Your task to perform on an android device: install app "Booking.com: Hotels and more" Image 0: 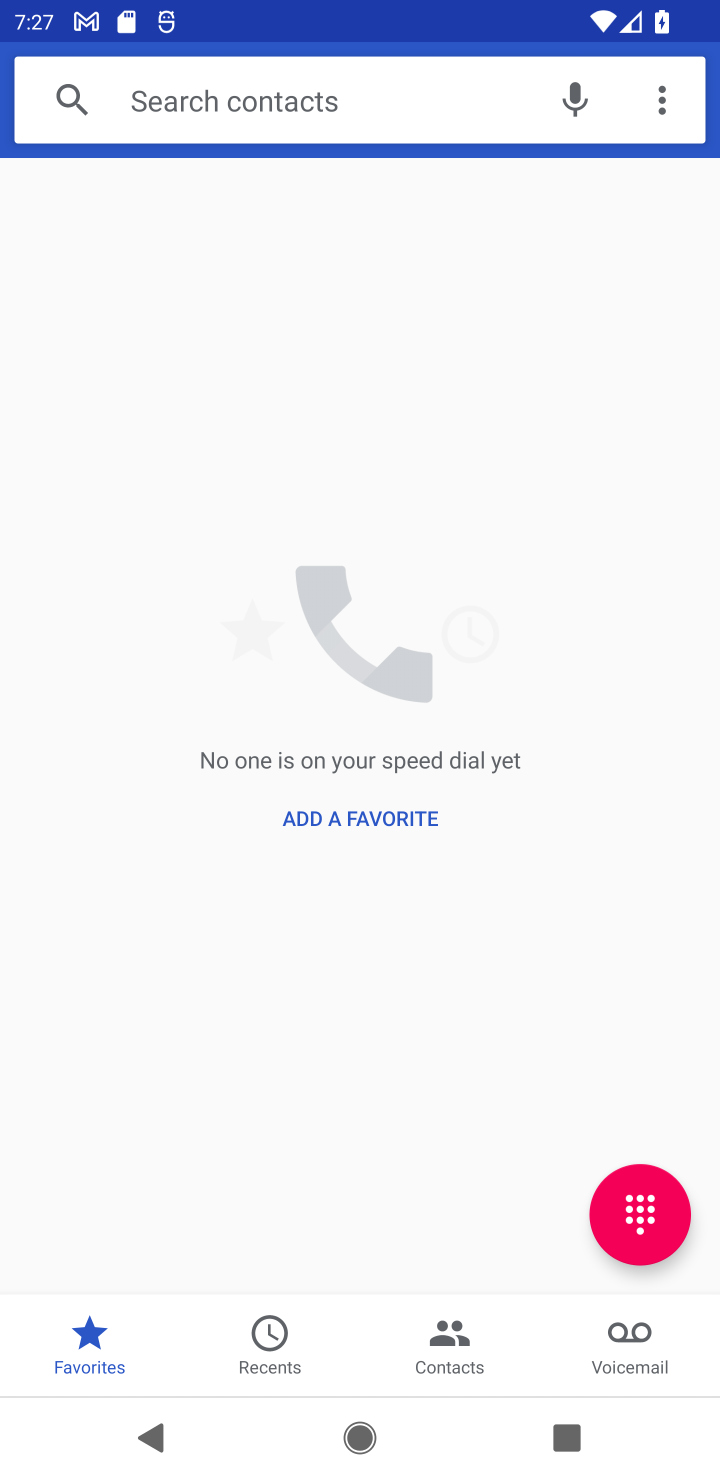
Step 0: press home button
Your task to perform on an android device: install app "Booking.com: Hotels and more" Image 1: 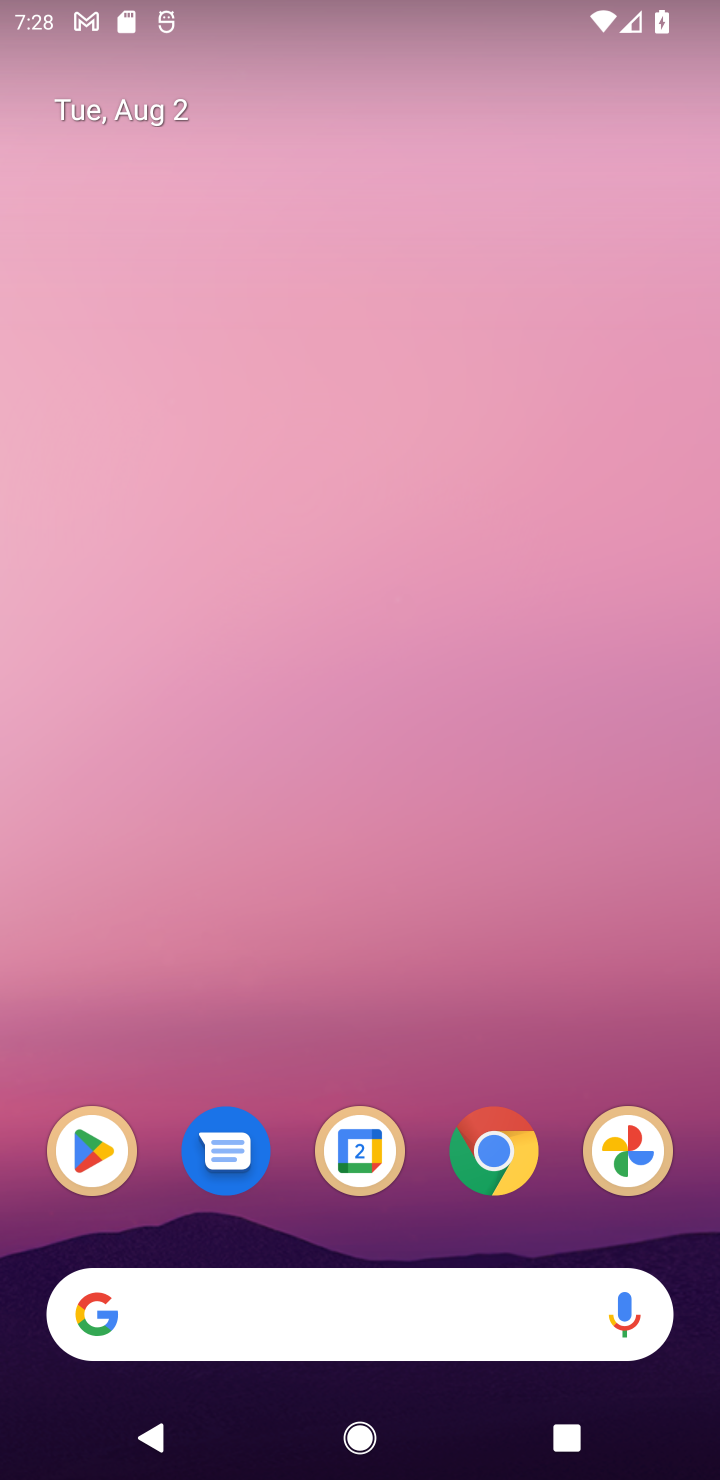
Step 1: click (77, 1142)
Your task to perform on an android device: install app "Booking.com: Hotels and more" Image 2: 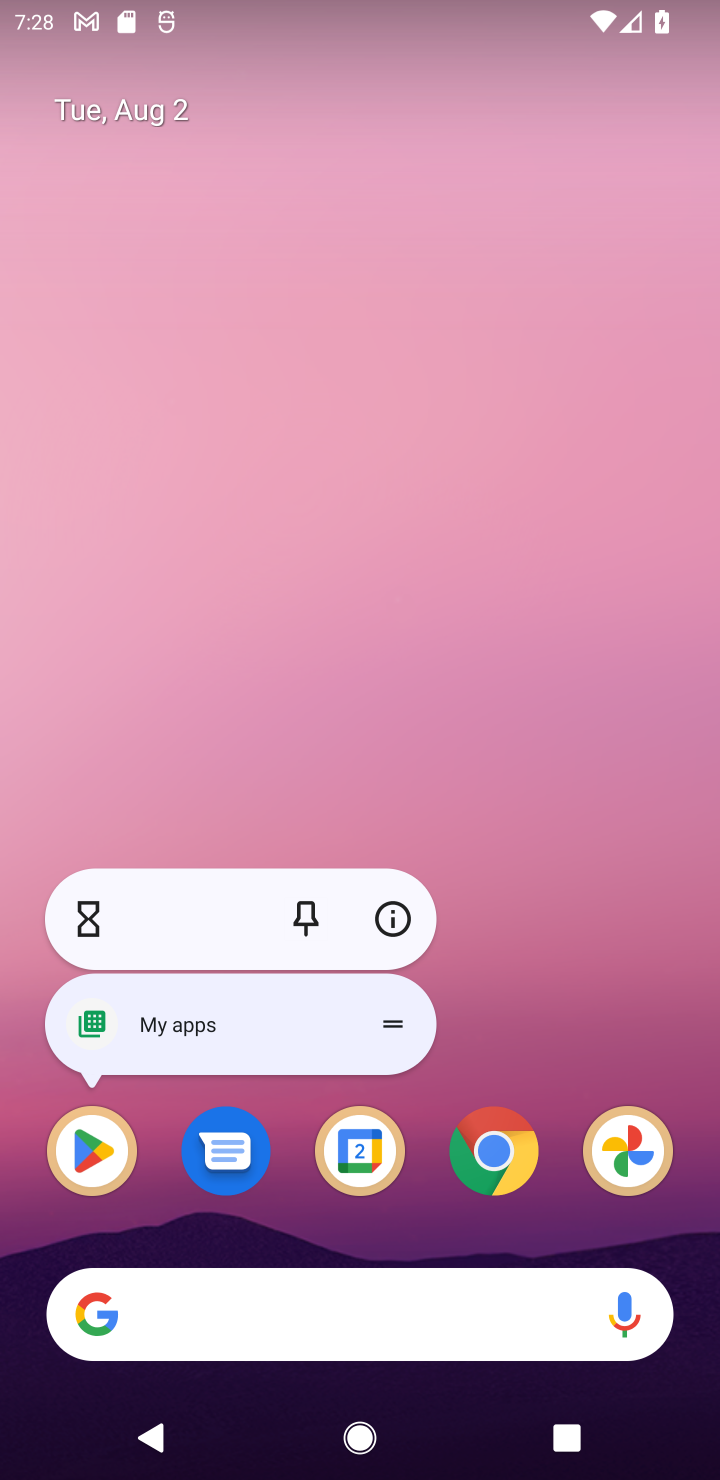
Step 2: click (82, 1210)
Your task to perform on an android device: install app "Booking.com: Hotels and more" Image 3: 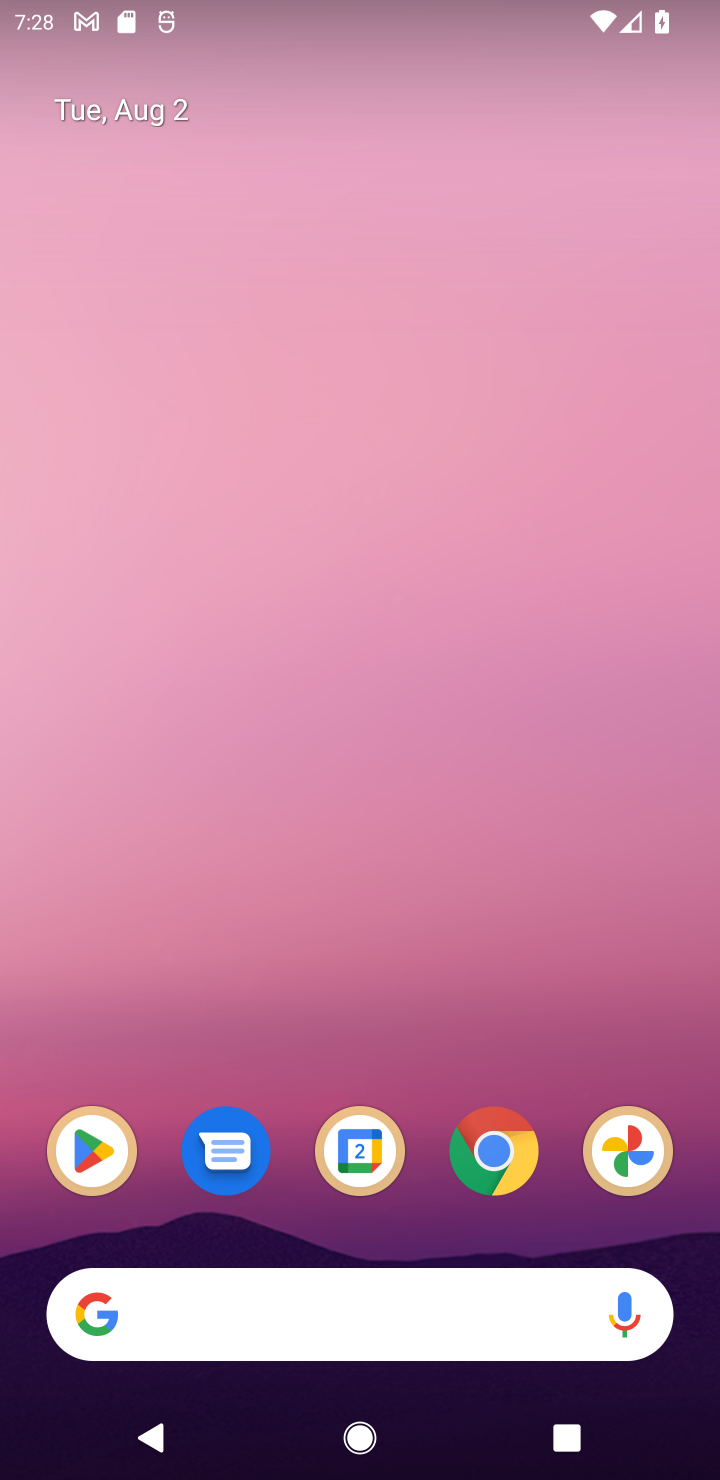
Step 3: drag from (347, 1239) to (194, 144)
Your task to perform on an android device: install app "Booking.com: Hotels and more" Image 4: 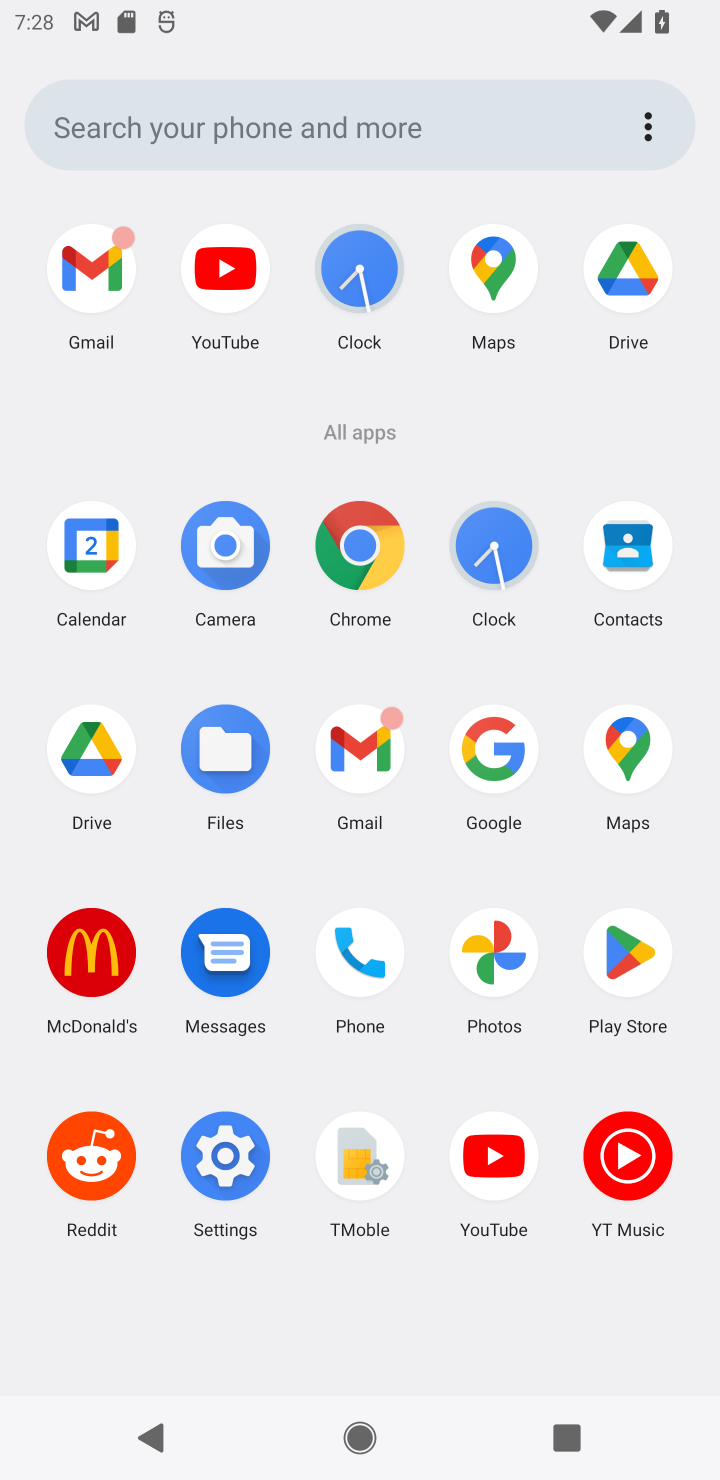
Step 4: click (562, 985)
Your task to perform on an android device: install app "Booking.com: Hotels and more" Image 5: 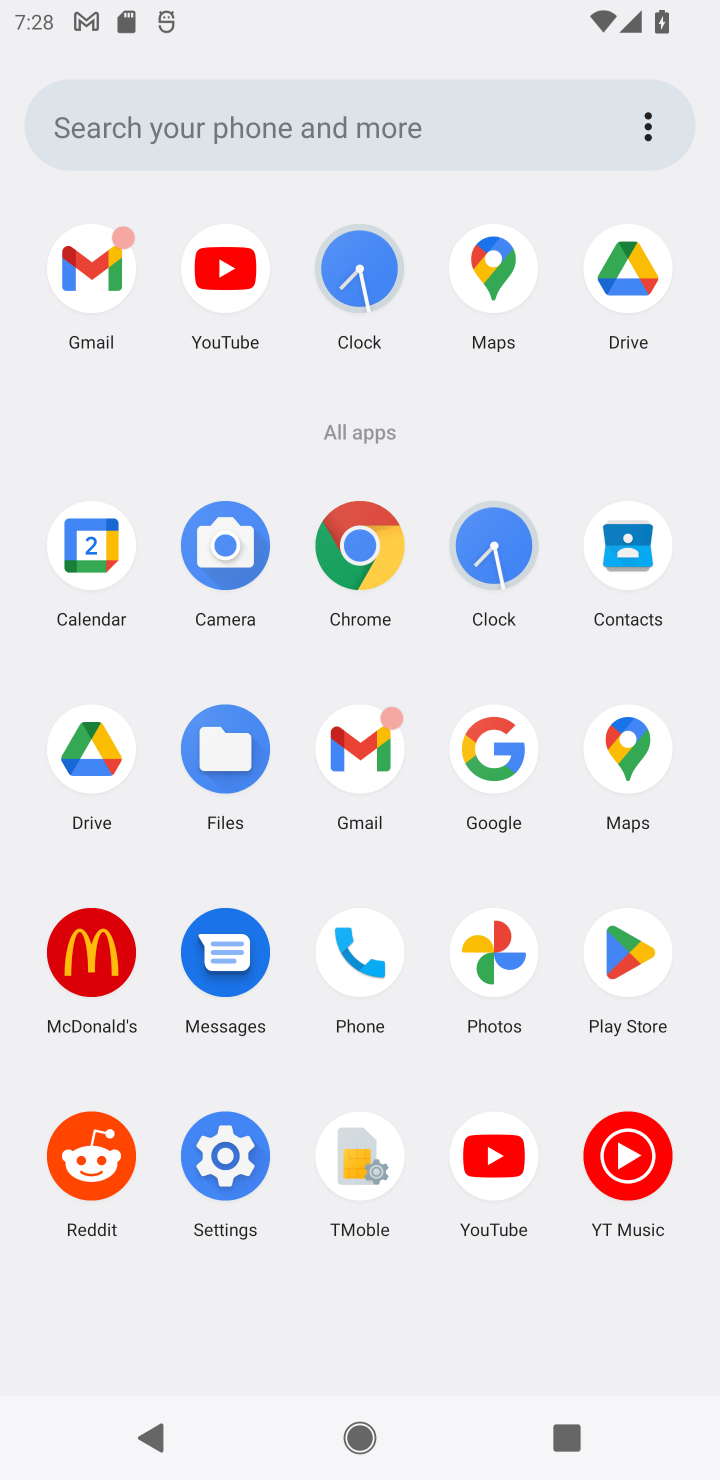
Step 5: click (595, 975)
Your task to perform on an android device: install app "Booking.com: Hotels and more" Image 6: 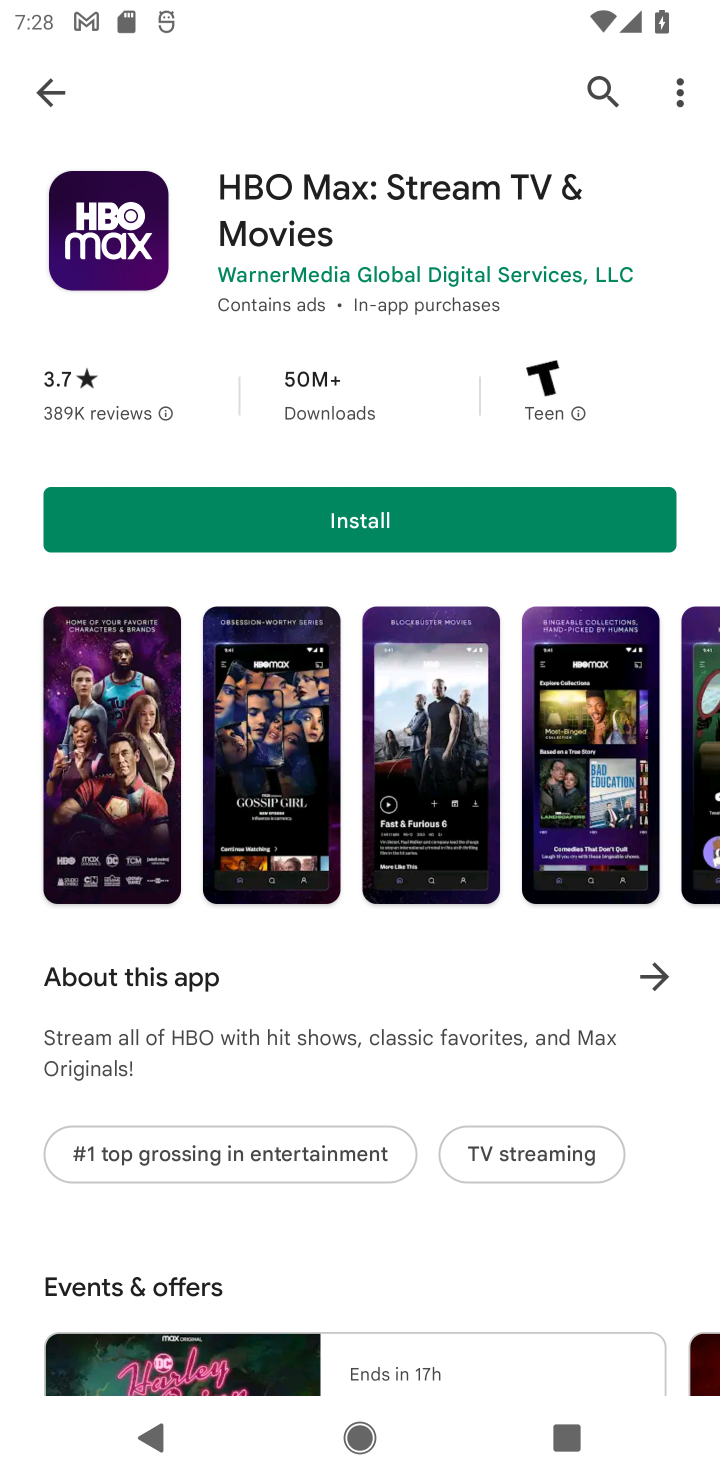
Step 6: click (324, 475)
Your task to perform on an android device: install app "Booking.com: Hotels and more" Image 7: 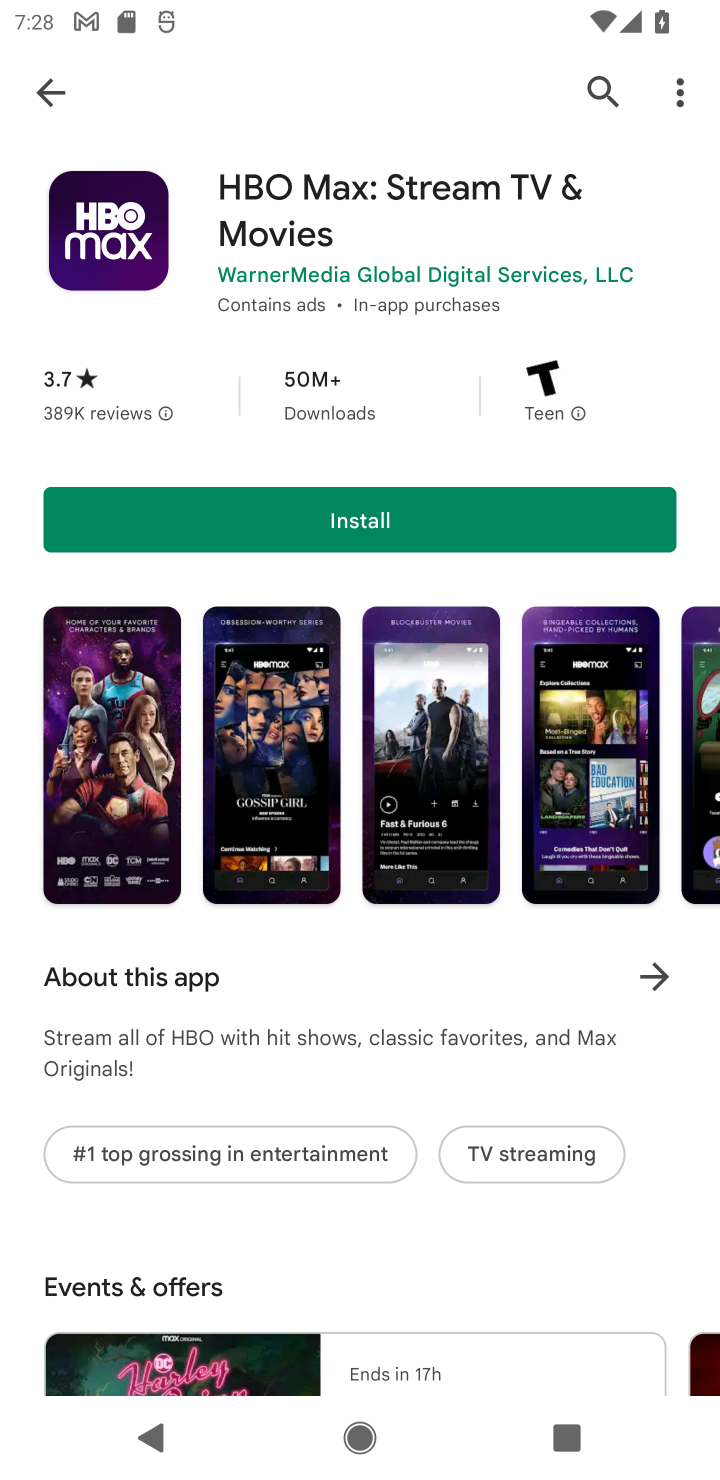
Step 7: click (344, 513)
Your task to perform on an android device: install app "Booking.com: Hotels and more" Image 8: 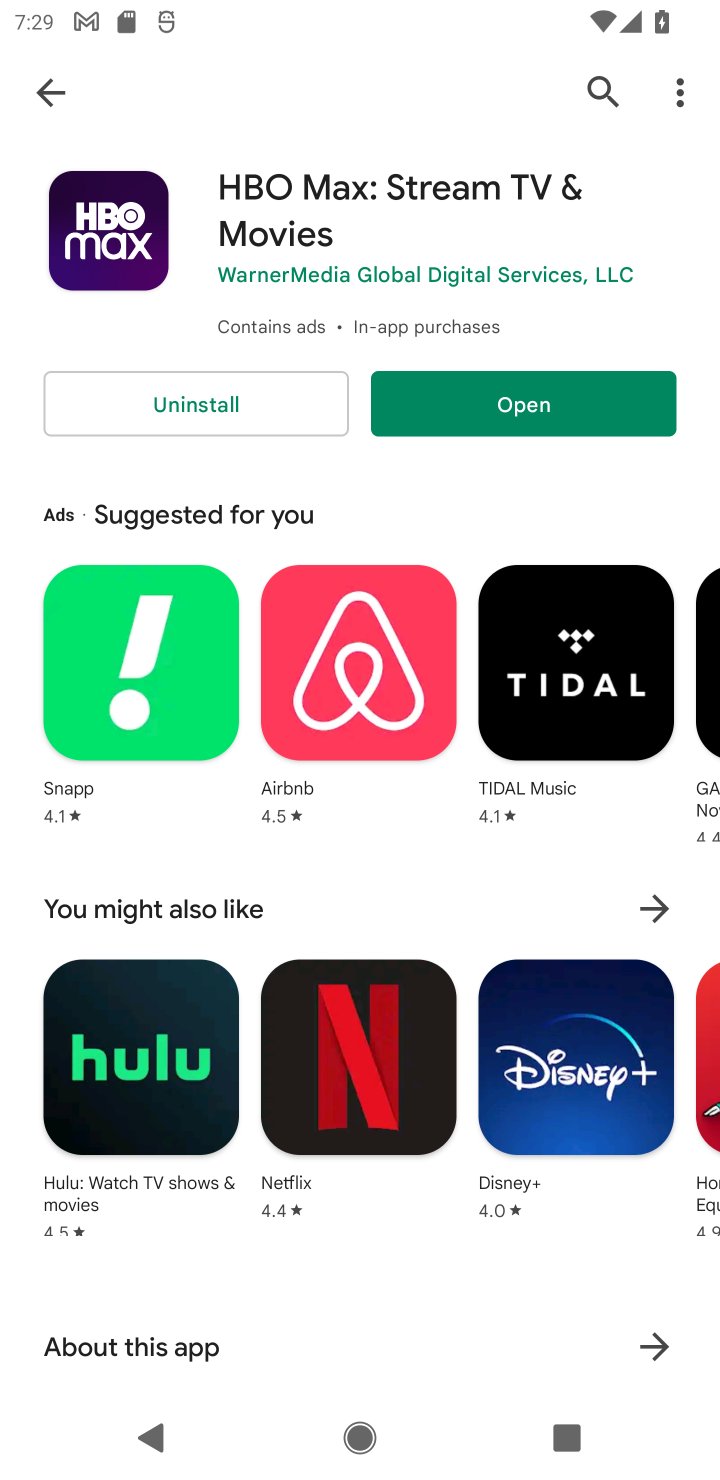
Step 8: press home button
Your task to perform on an android device: install app "Booking.com: Hotels and more" Image 9: 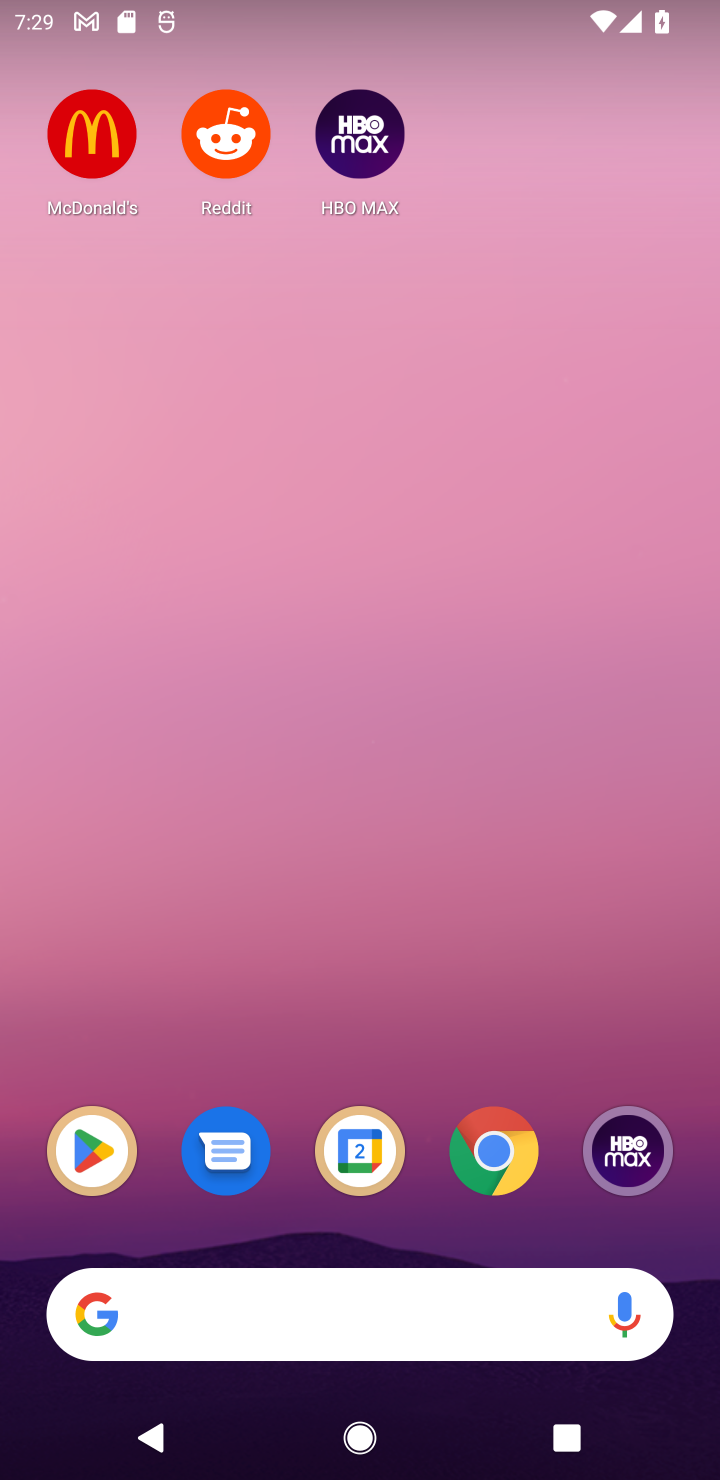
Step 9: click (81, 1143)
Your task to perform on an android device: install app "Booking.com: Hotels and more" Image 10: 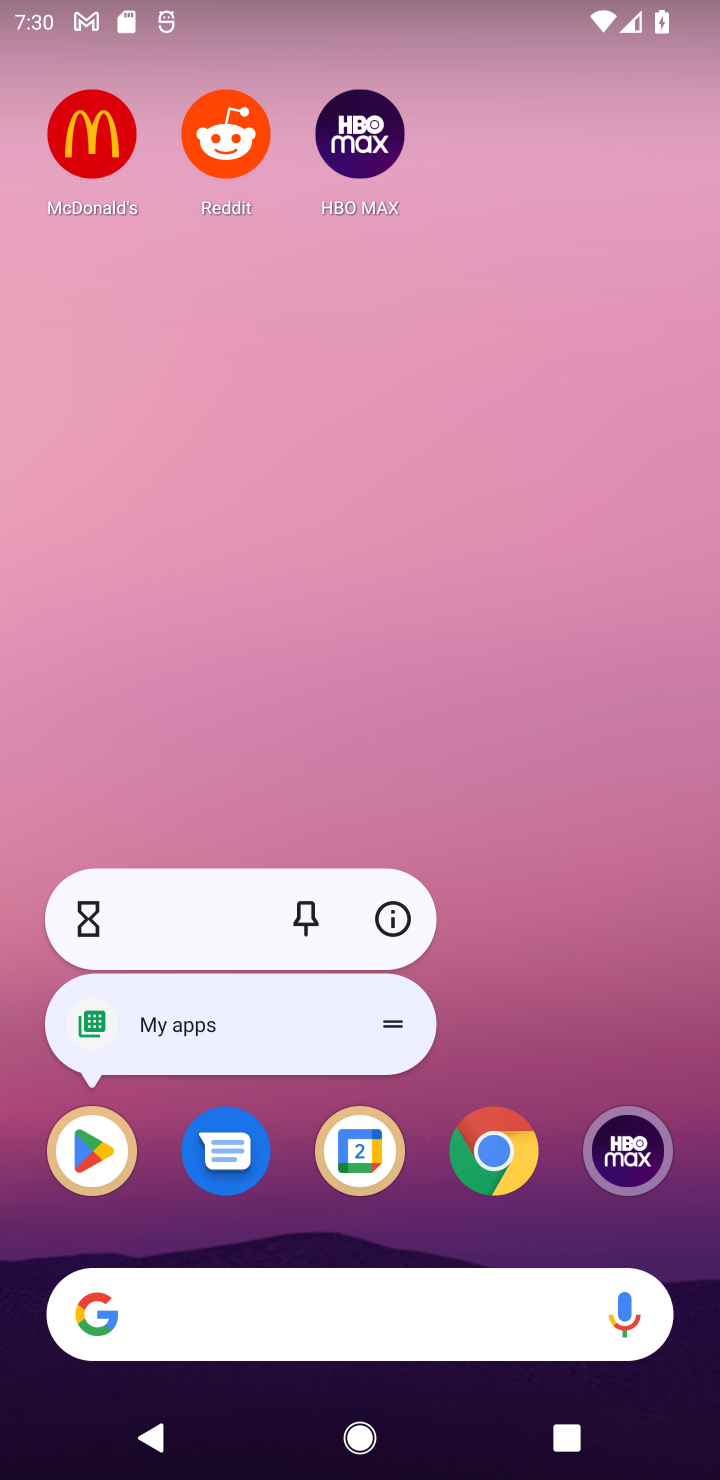
Step 10: drag from (431, 1223) to (393, 148)
Your task to perform on an android device: install app "Booking.com: Hotels and more" Image 11: 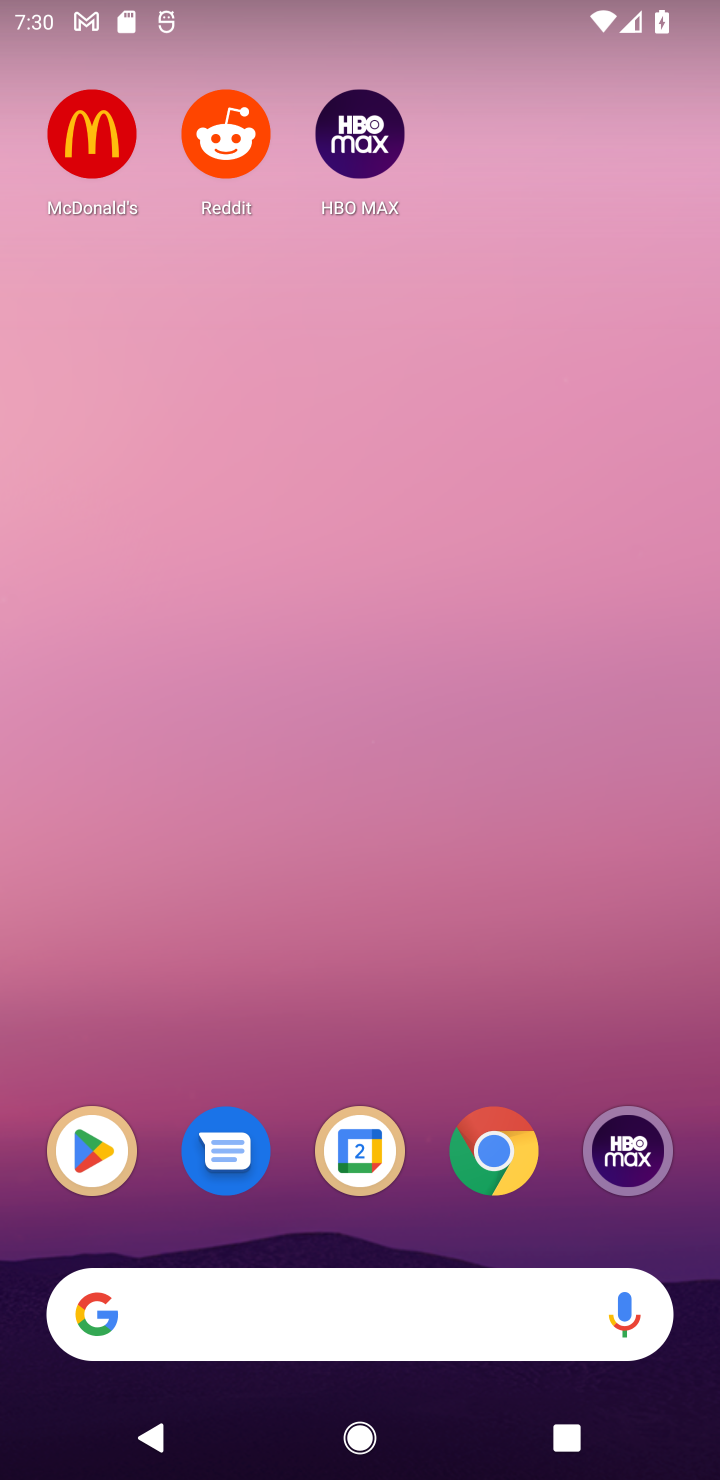
Step 11: click (118, 1144)
Your task to perform on an android device: install app "Booking.com: Hotels and more" Image 12: 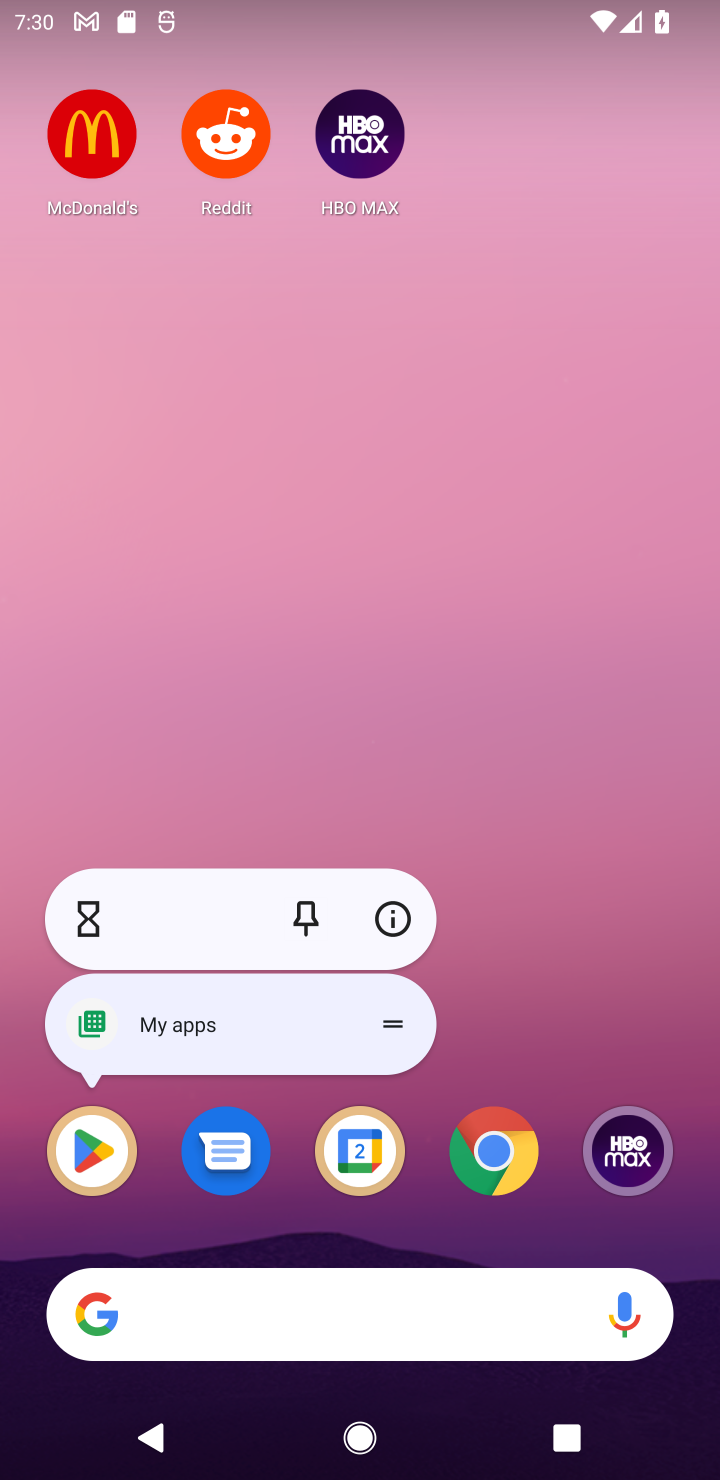
Step 12: click (319, 704)
Your task to perform on an android device: install app "Booking.com: Hotels and more" Image 13: 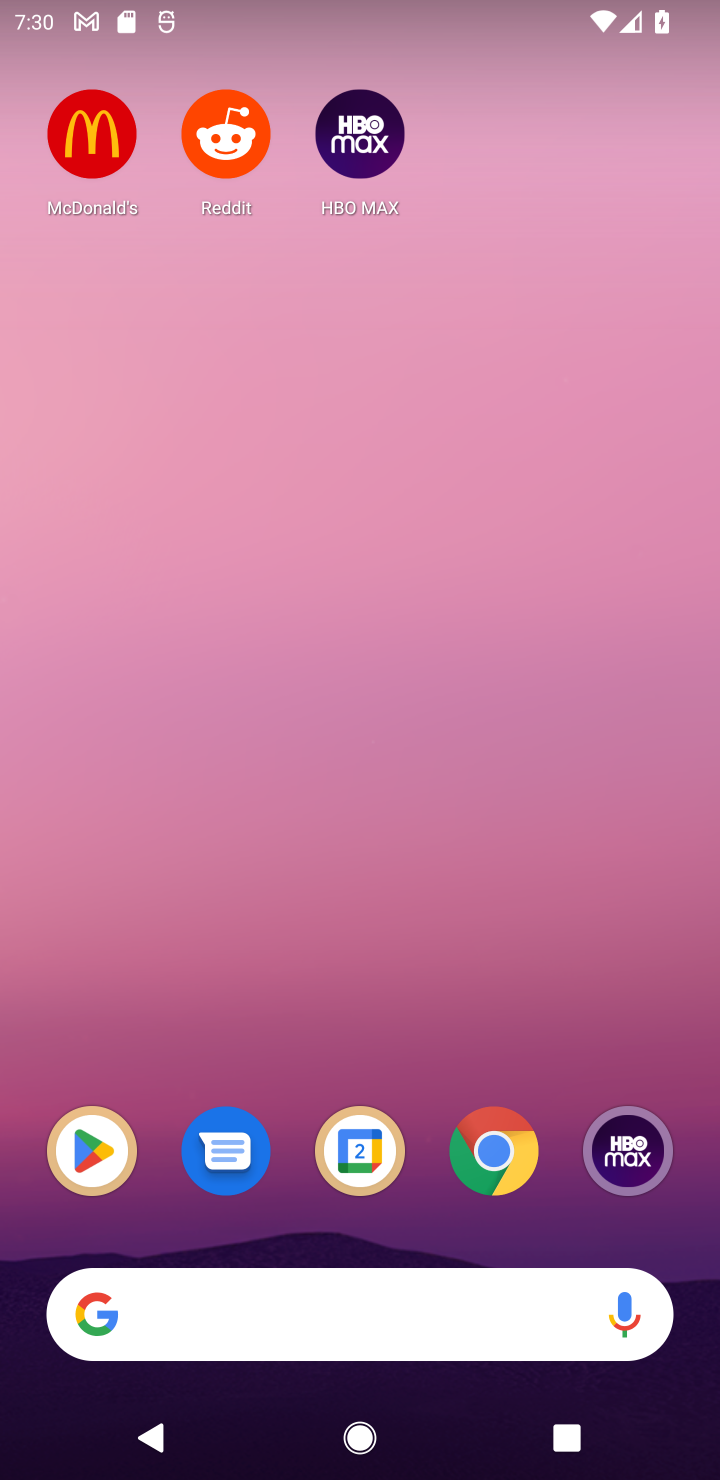
Step 13: click (81, 1166)
Your task to perform on an android device: install app "Booking.com: Hotels and more" Image 14: 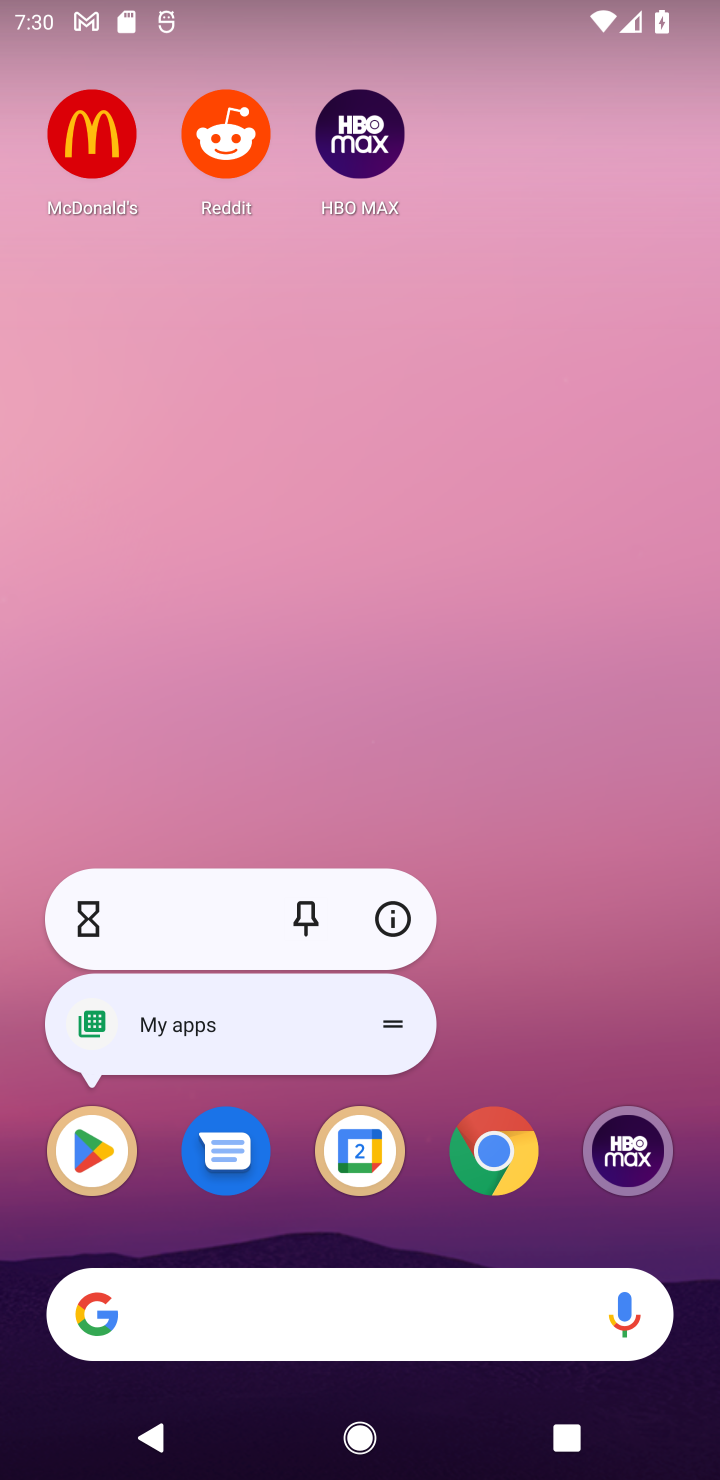
Step 14: click (122, 1164)
Your task to perform on an android device: install app "Booking.com: Hotels and more" Image 15: 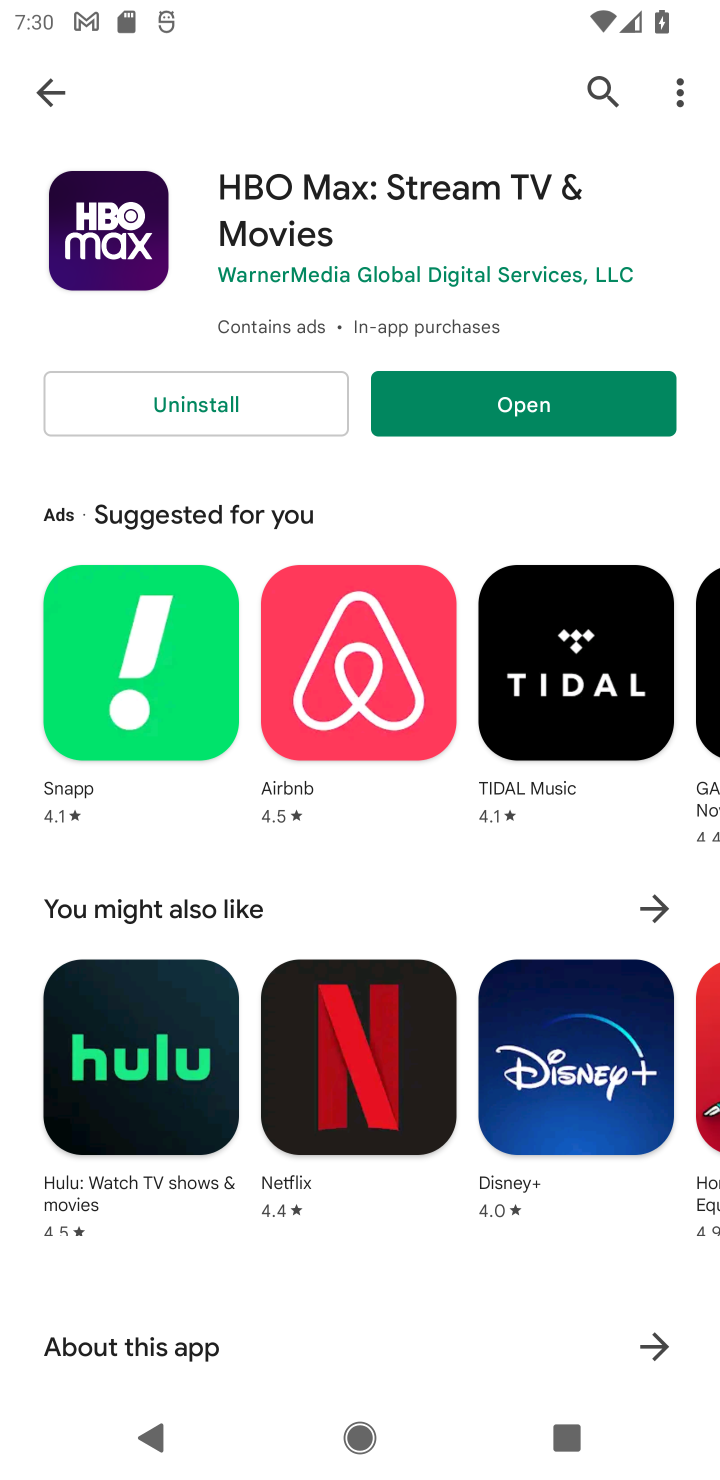
Step 15: click (44, 99)
Your task to perform on an android device: install app "Booking.com: Hotels and more" Image 16: 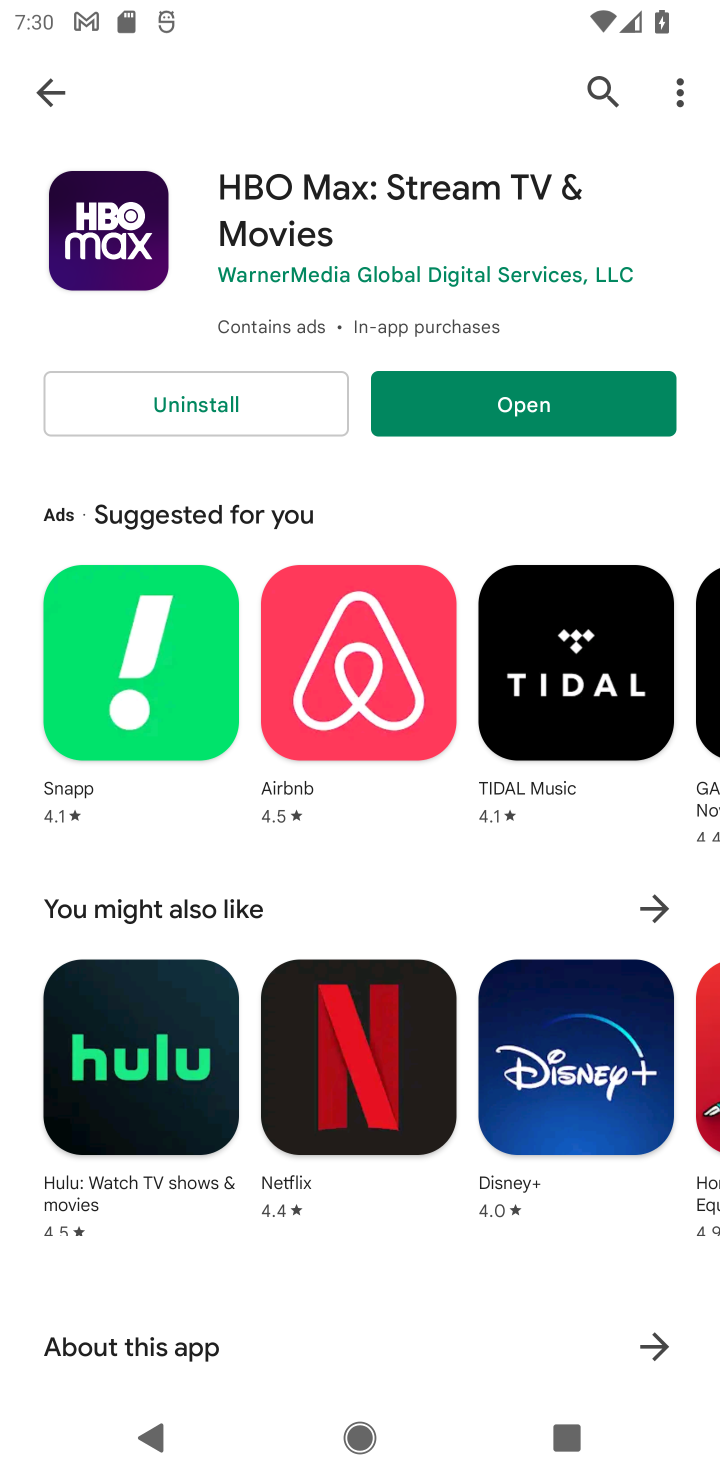
Step 16: click (44, 104)
Your task to perform on an android device: install app "Booking.com: Hotels and more" Image 17: 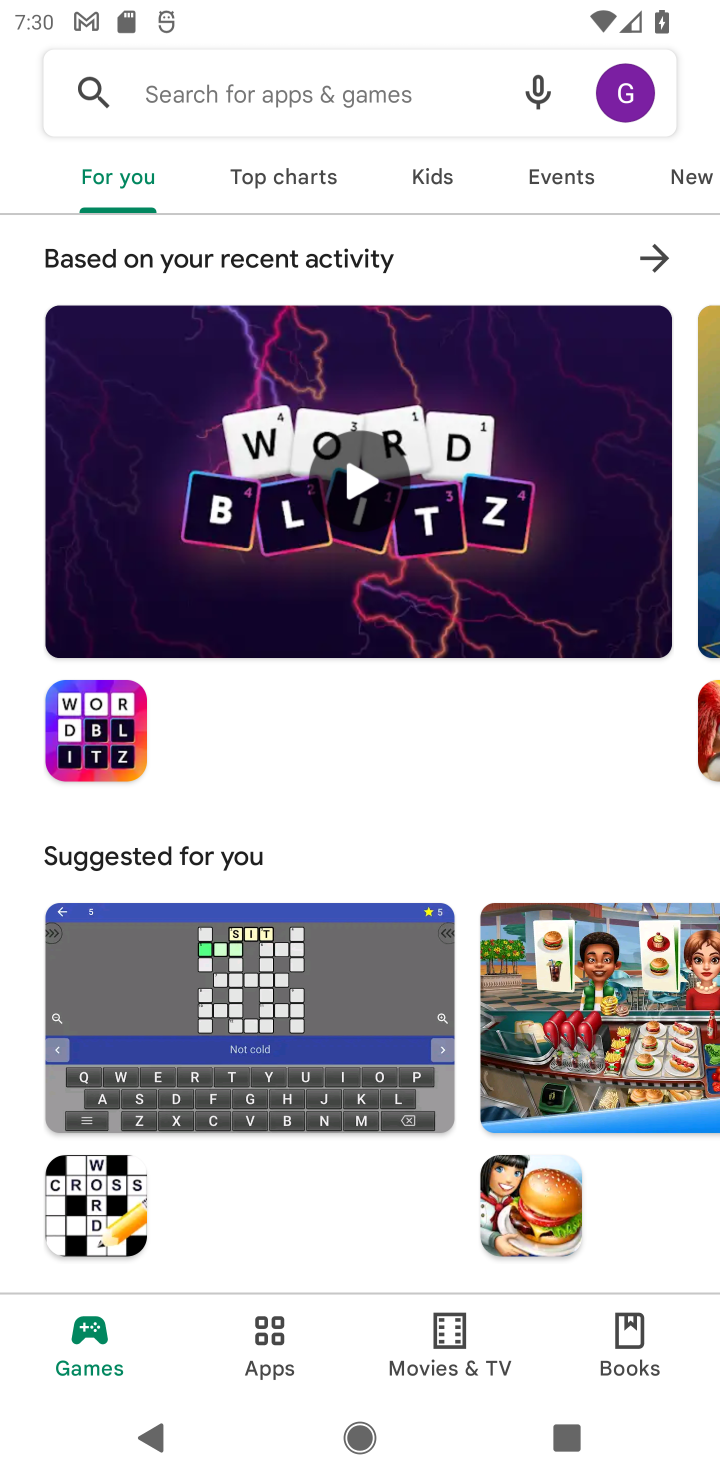
Step 17: click (194, 82)
Your task to perform on an android device: install app "Booking.com: Hotels and more" Image 18: 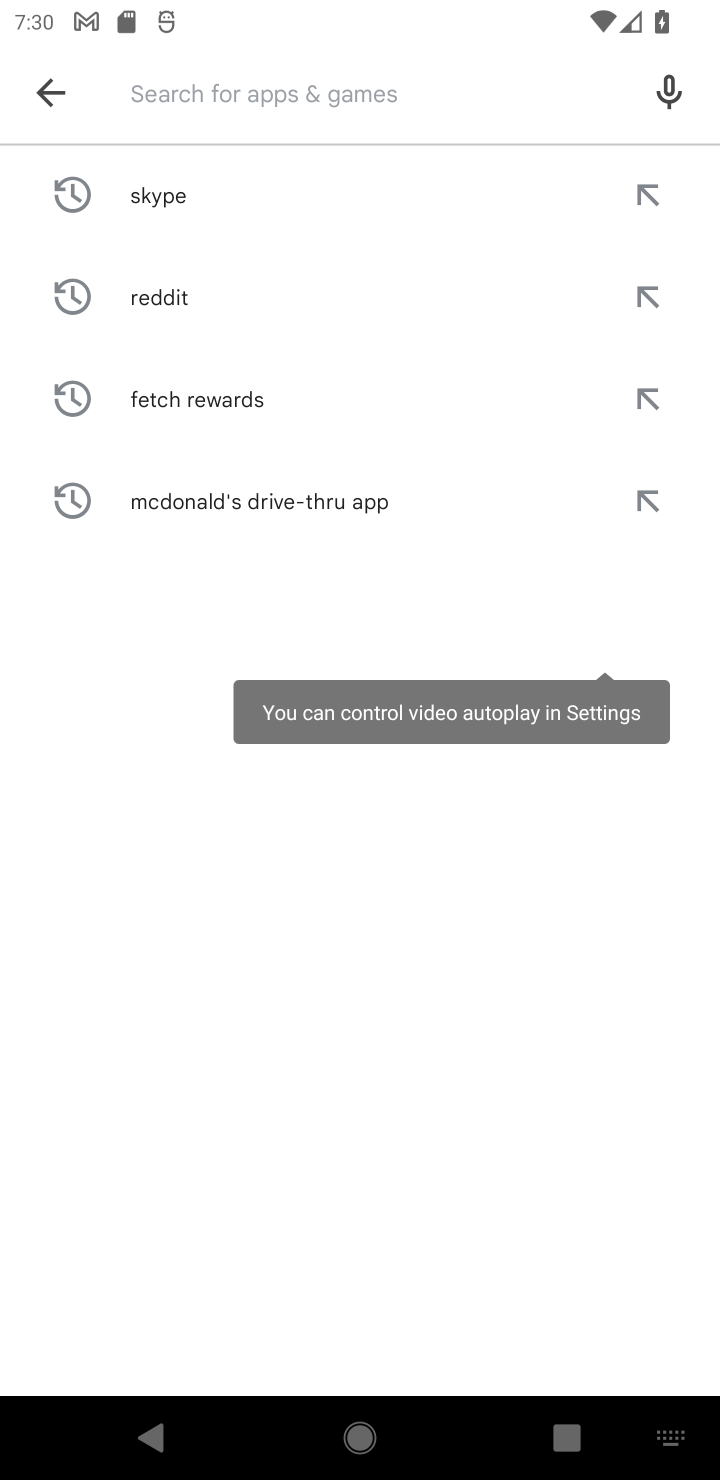
Step 18: type "Booking.com: Hotels and more"
Your task to perform on an android device: install app "Booking.com: Hotels and more" Image 19: 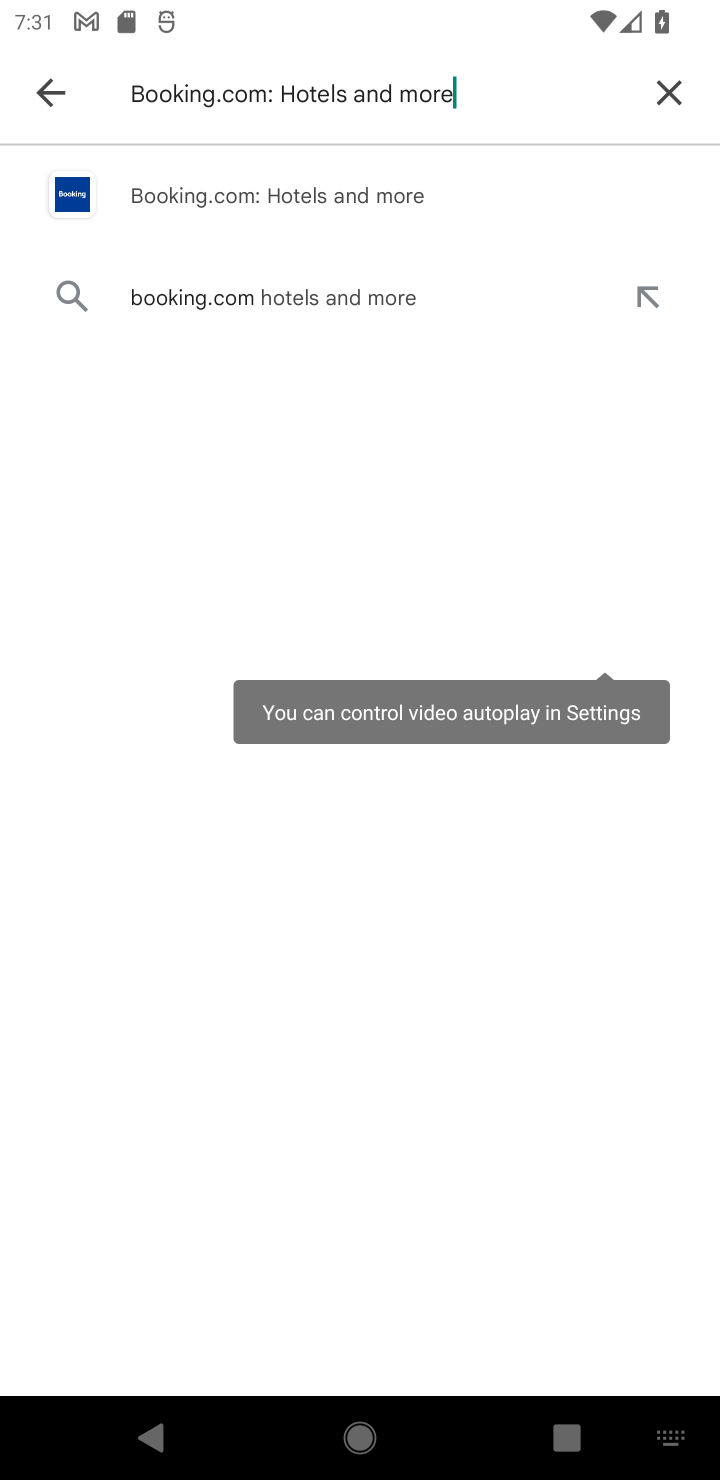
Step 19: click (104, 202)
Your task to perform on an android device: install app "Booking.com: Hotels and more" Image 20: 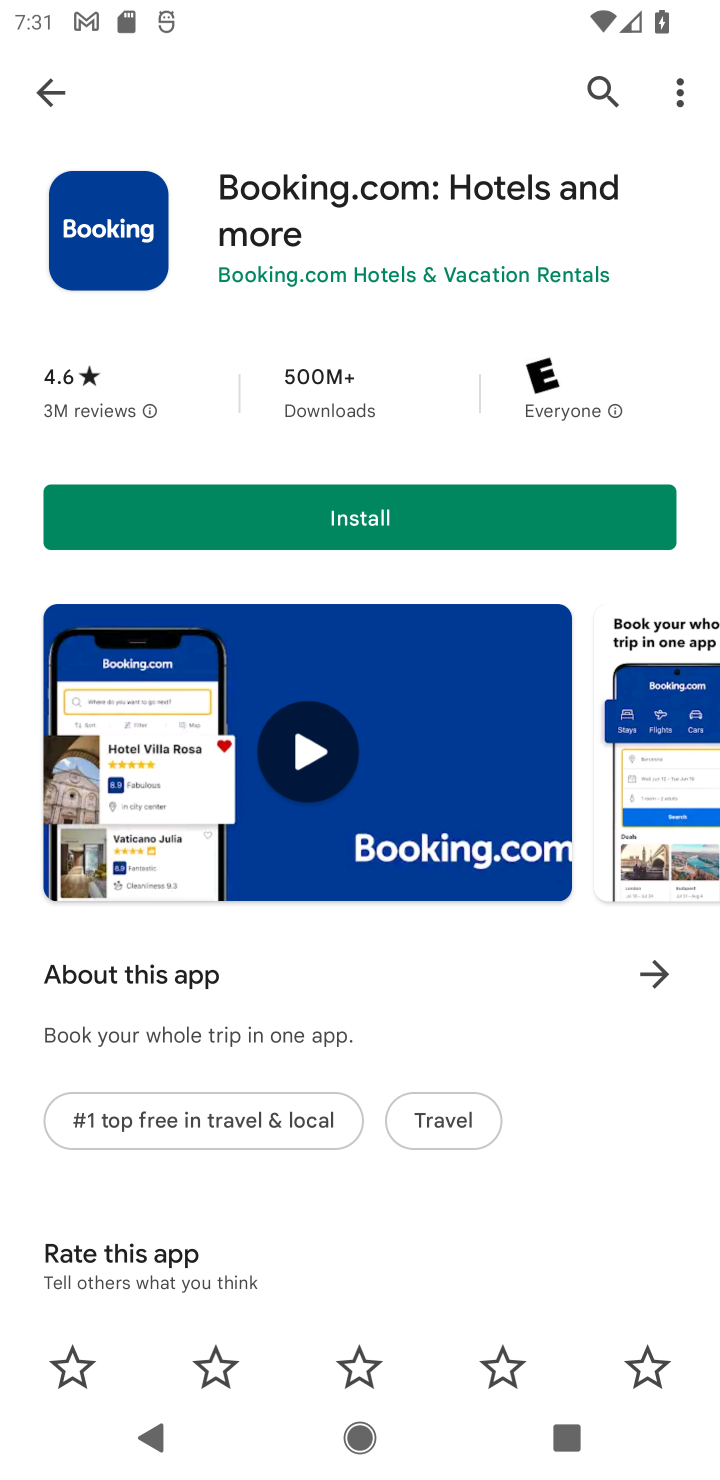
Step 20: click (261, 523)
Your task to perform on an android device: install app "Booking.com: Hotels and more" Image 21: 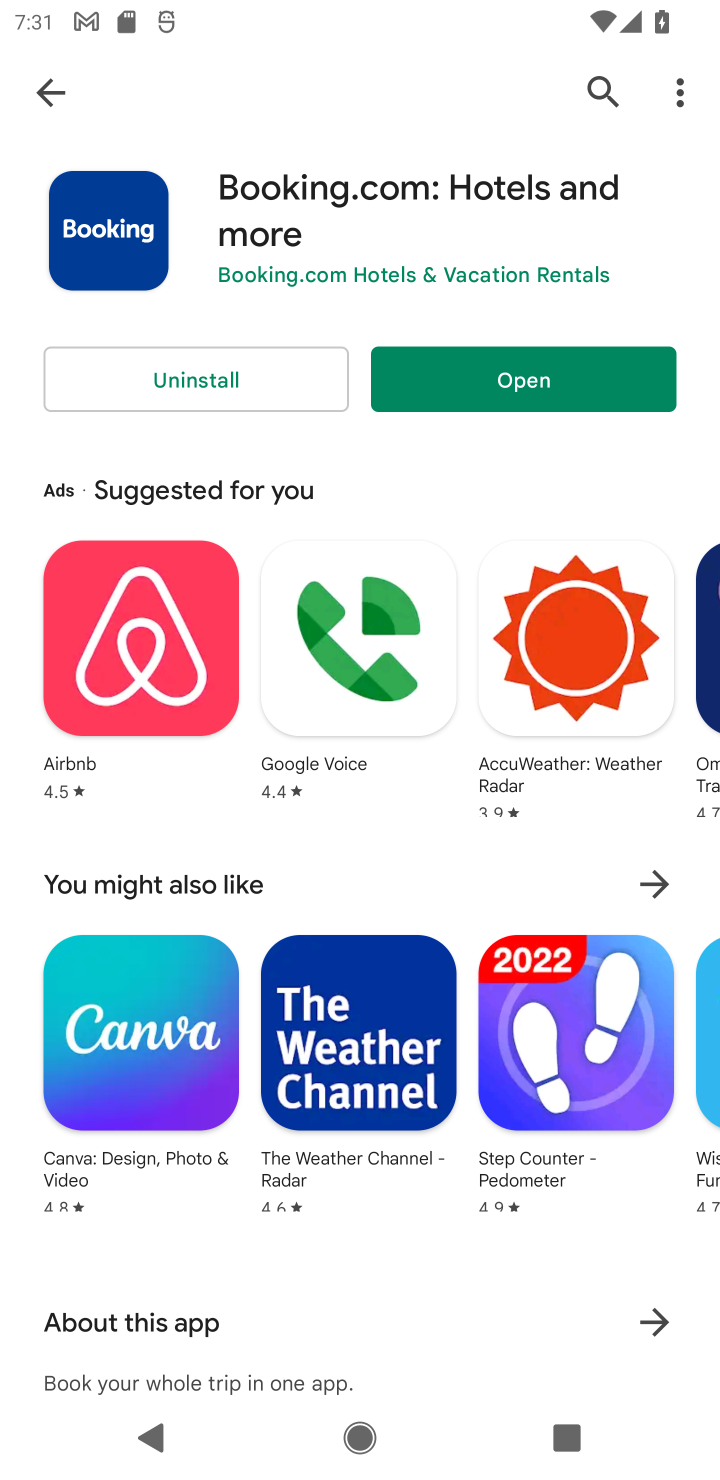
Step 21: click (464, 369)
Your task to perform on an android device: install app "Booking.com: Hotels and more" Image 22: 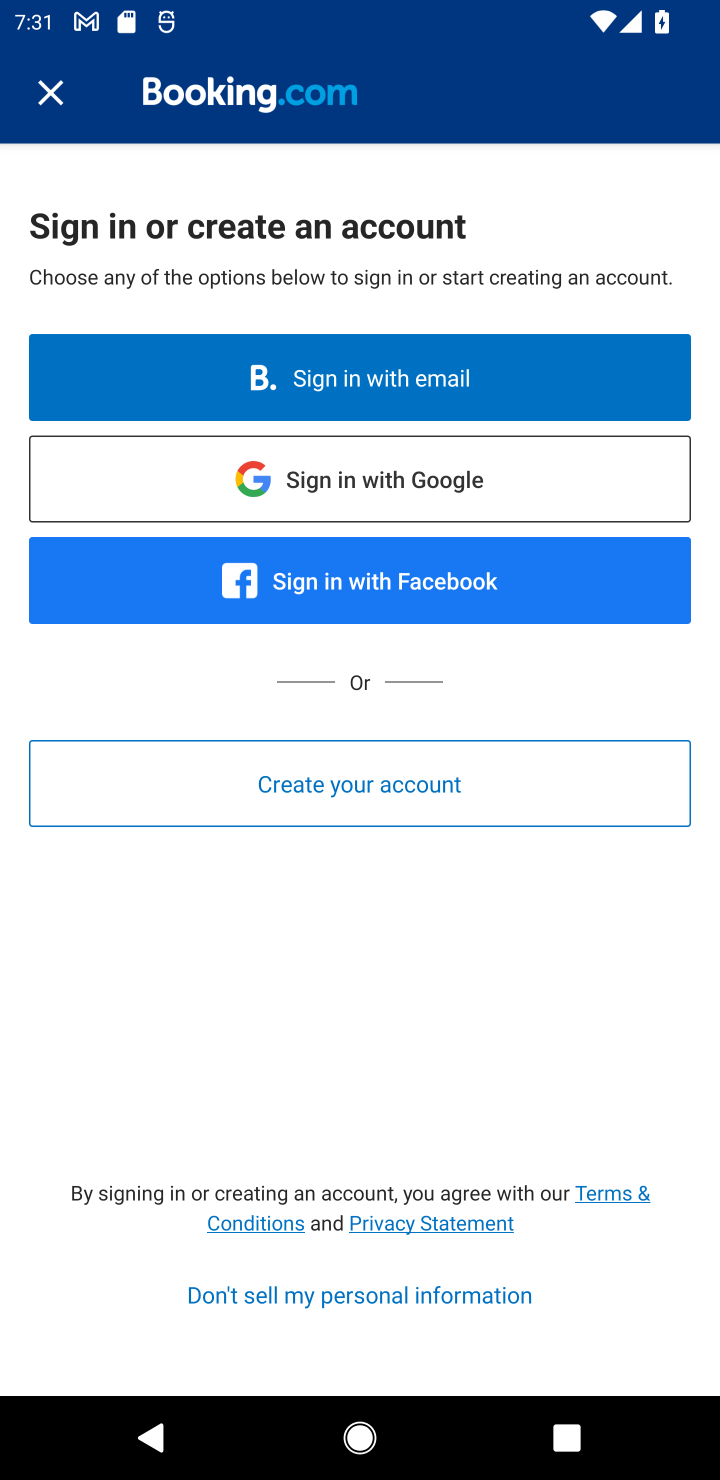
Step 22: task complete